Your task to perform on an android device: Go to Wikipedia Image 0: 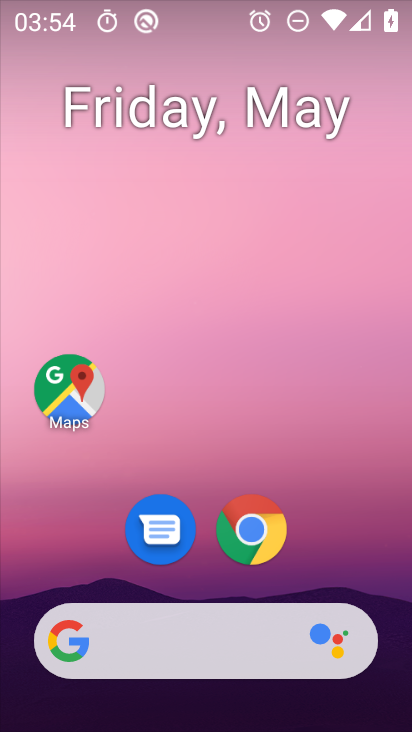
Step 0: click (245, 530)
Your task to perform on an android device: Go to Wikipedia Image 1: 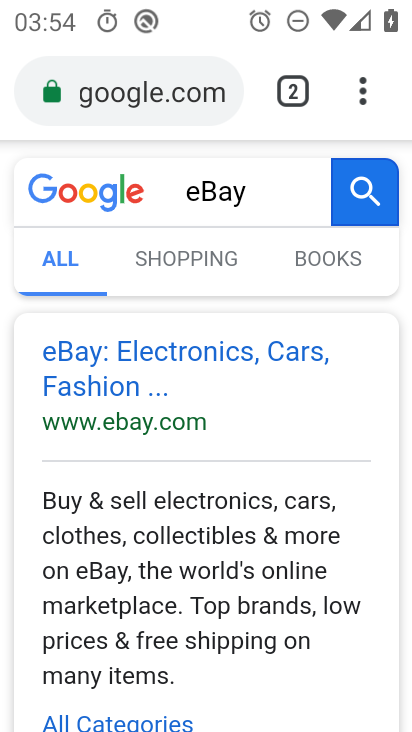
Step 1: click (222, 92)
Your task to perform on an android device: Go to Wikipedia Image 2: 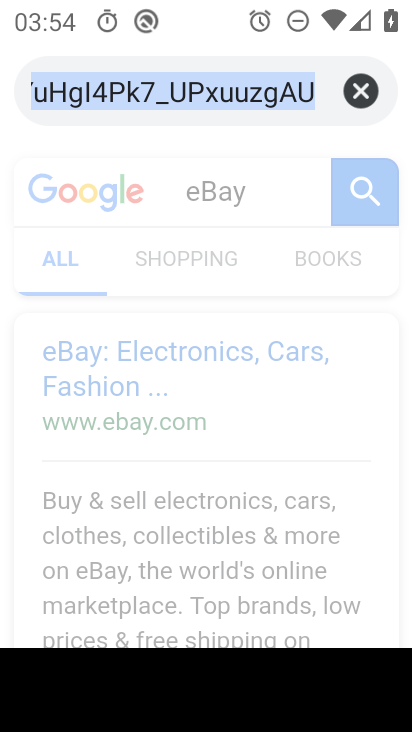
Step 2: click (349, 84)
Your task to perform on an android device: Go to Wikipedia Image 3: 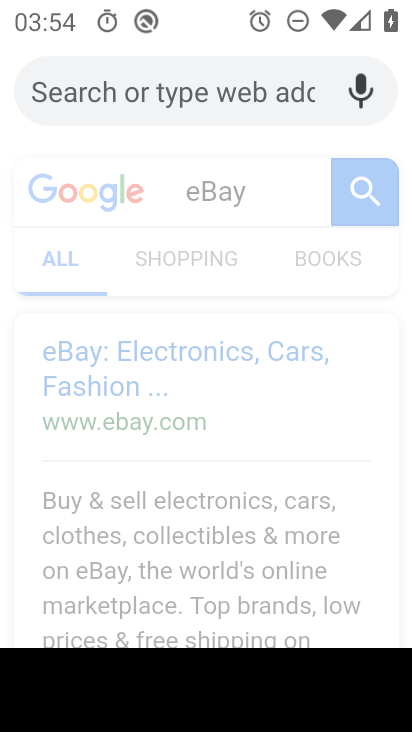
Step 3: type "Wikipedia"
Your task to perform on an android device: Go to Wikipedia Image 4: 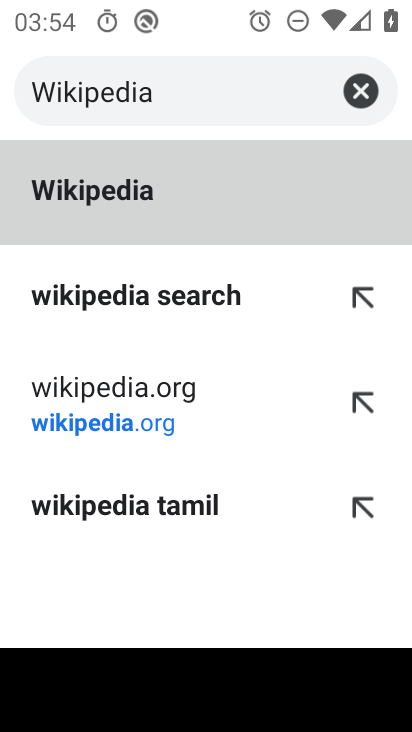
Step 4: click (106, 194)
Your task to perform on an android device: Go to Wikipedia Image 5: 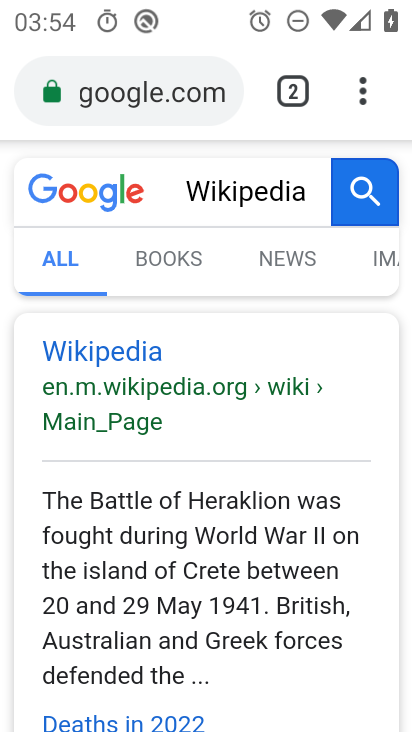
Step 5: task complete